Your task to perform on an android device: Search for sushi restaurants on Maps Image 0: 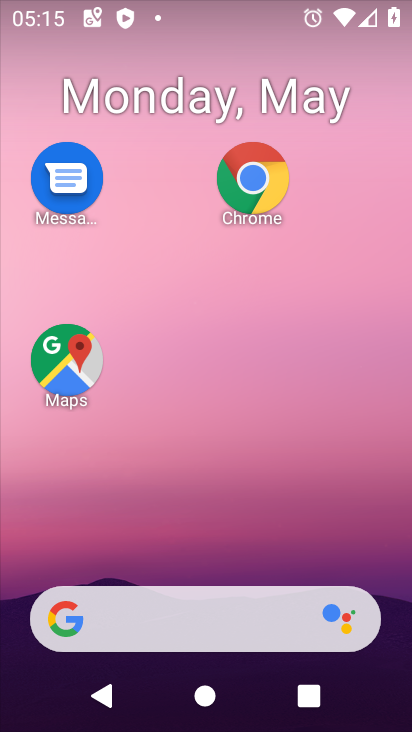
Step 0: drag from (152, 548) to (158, 13)
Your task to perform on an android device: Search for sushi restaurants on Maps Image 1: 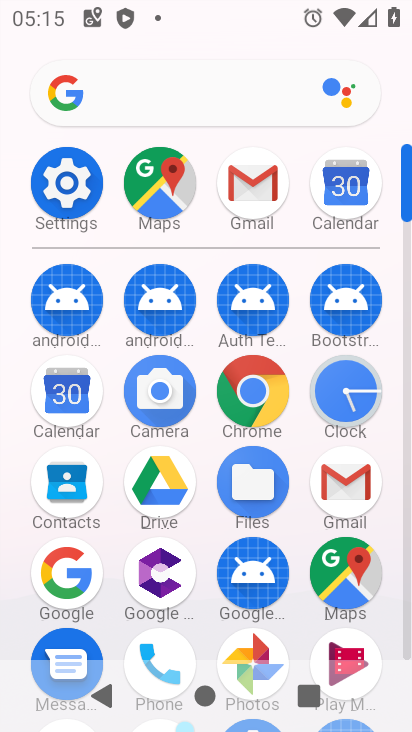
Step 1: click (146, 191)
Your task to perform on an android device: Search for sushi restaurants on Maps Image 2: 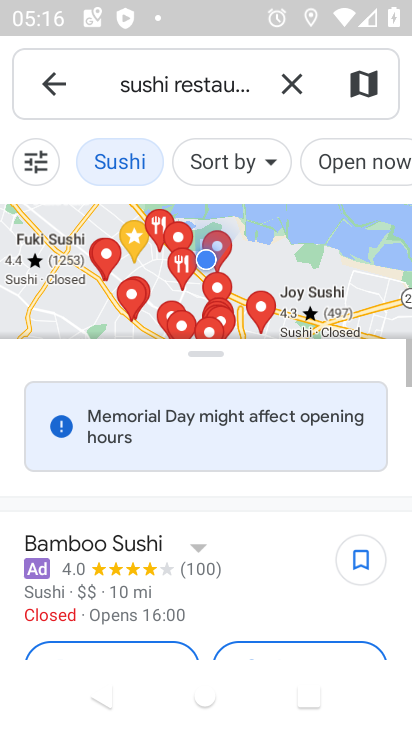
Step 2: task complete